Your task to perform on an android device: open a bookmark in the chrome app Image 0: 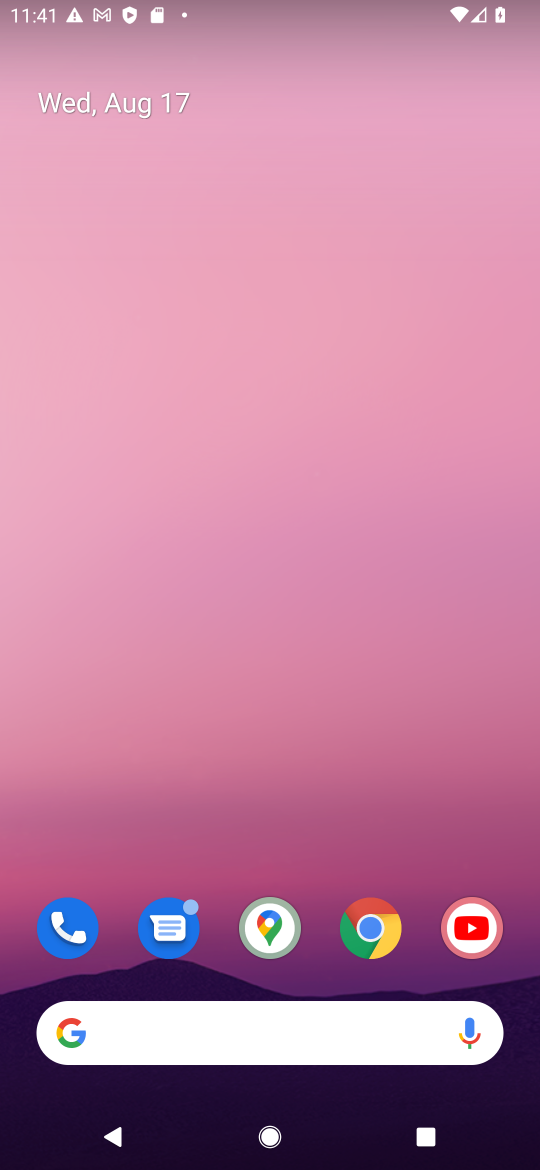
Step 0: click (367, 926)
Your task to perform on an android device: open a bookmark in the chrome app Image 1: 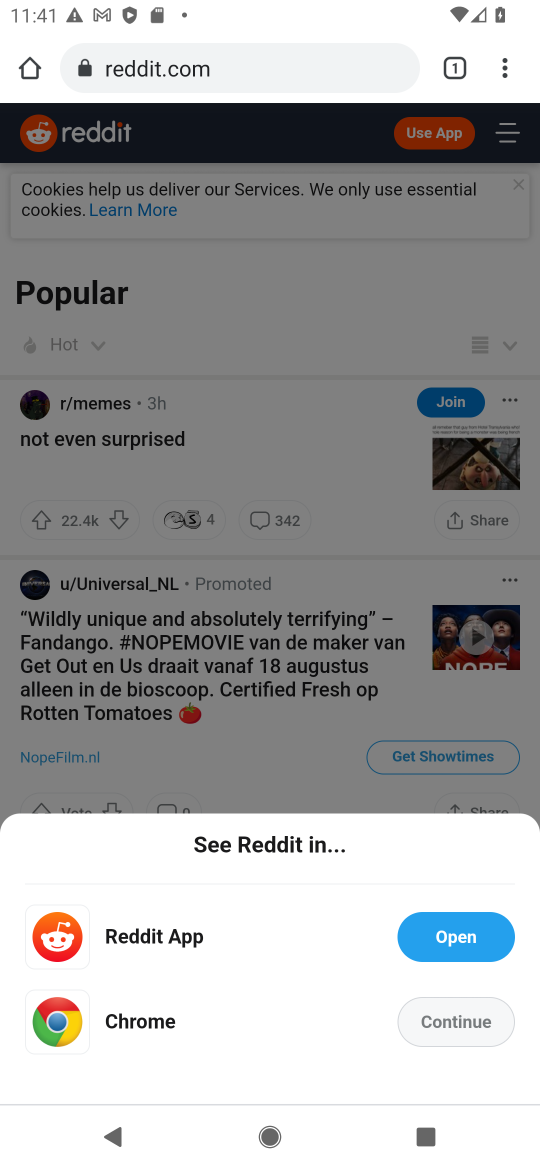
Step 1: click (497, 73)
Your task to perform on an android device: open a bookmark in the chrome app Image 2: 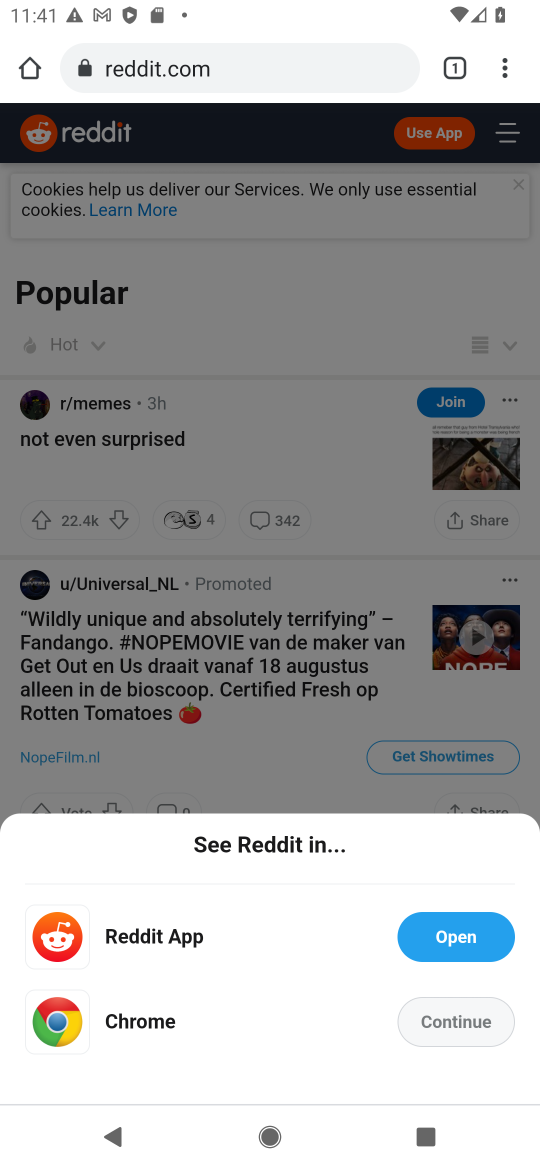
Step 2: click (500, 68)
Your task to perform on an android device: open a bookmark in the chrome app Image 3: 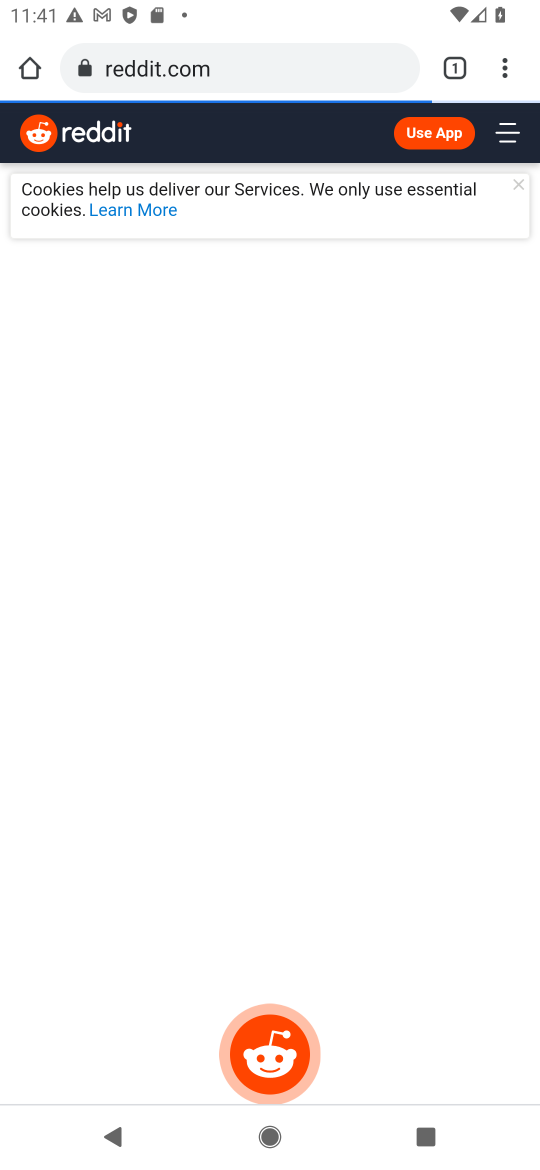
Step 3: drag from (502, 68) to (368, 369)
Your task to perform on an android device: open a bookmark in the chrome app Image 4: 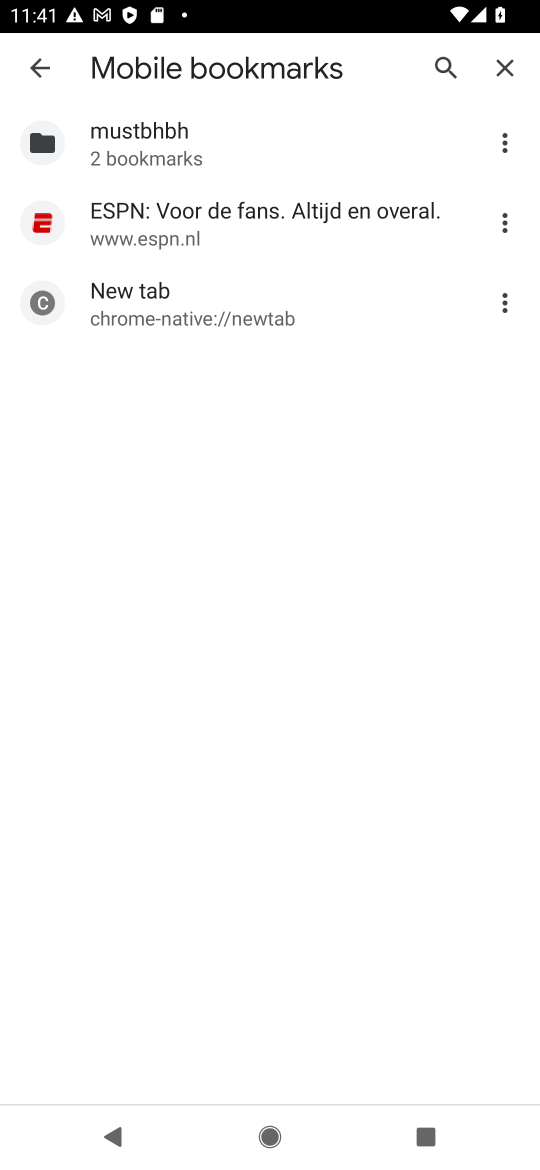
Step 4: click (257, 224)
Your task to perform on an android device: open a bookmark in the chrome app Image 5: 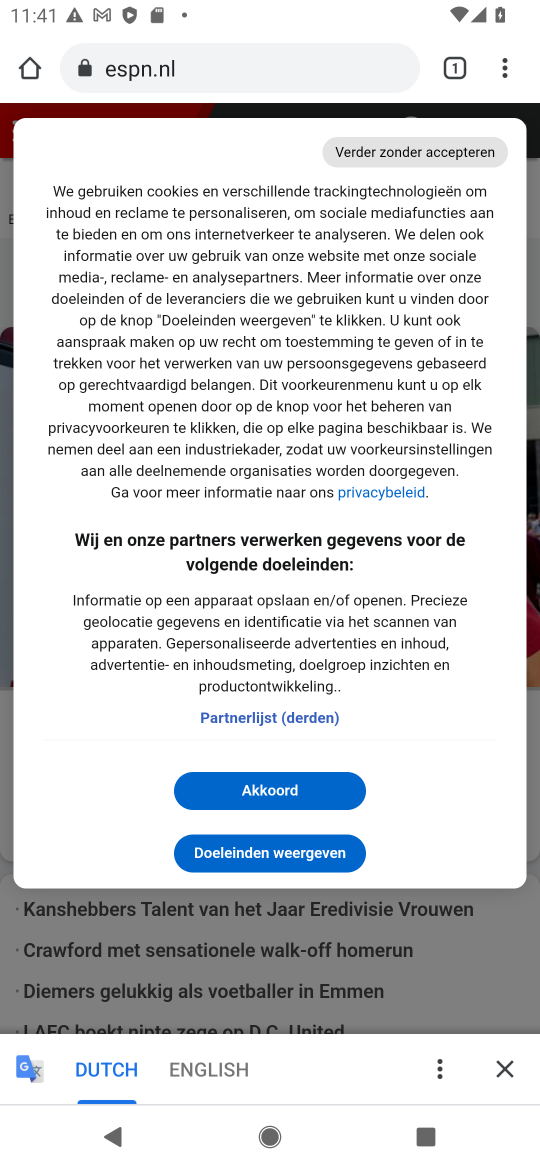
Step 5: task complete